Your task to perform on an android device: search for starred emails in the gmail app Image 0: 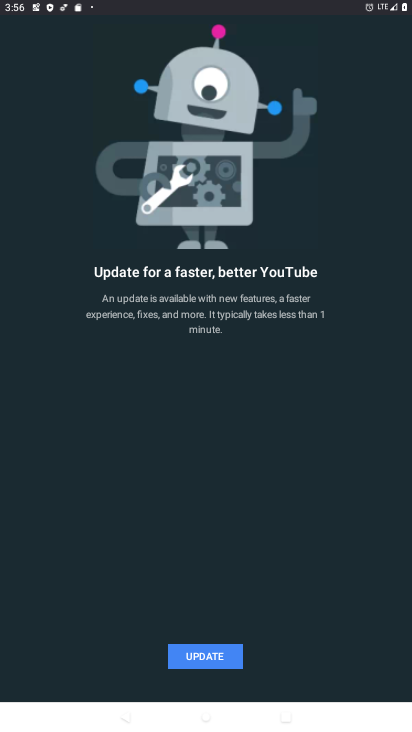
Step 0: press home button
Your task to perform on an android device: search for starred emails in the gmail app Image 1: 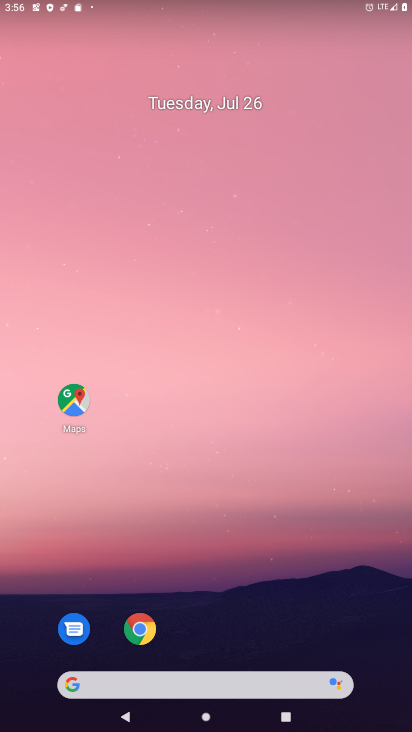
Step 1: drag from (241, 717) to (241, 95)
Your task to perform on an android device: search for starred emails in the gmail app Image 2: 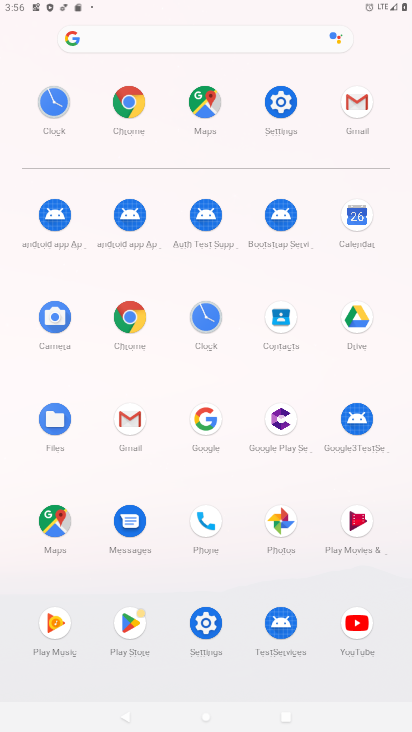
Step 2: click (125, 413)
Your task to perform on an android device: search for starred emails in the gmail app Image 3: 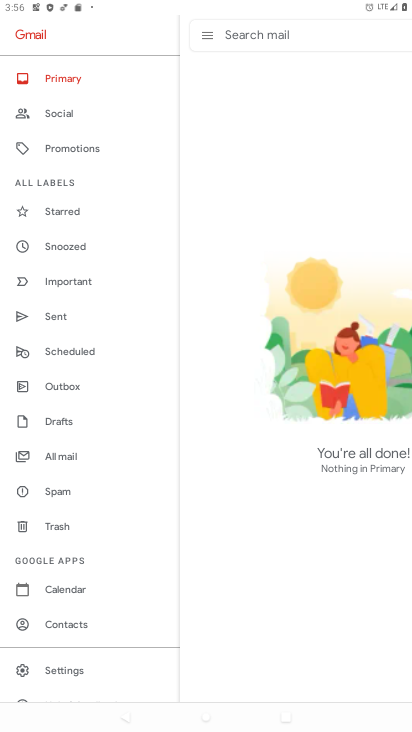
Step 3: click (59, 213)
Your task to perform on an android device: search for starred emails in the gmail app Image 4: 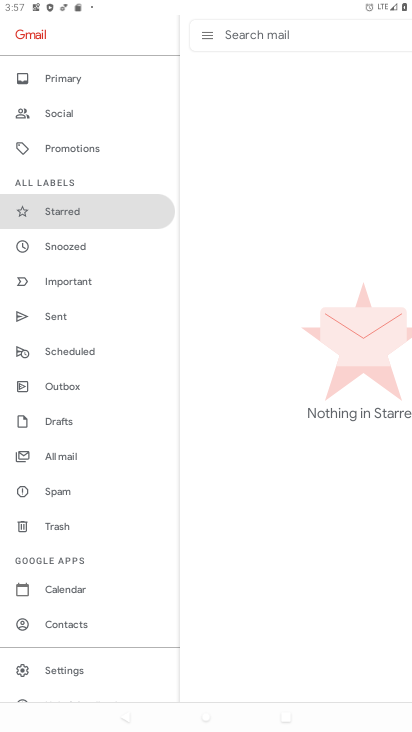
Step 4: task complete